Your task to perform on an android device: Open CNN.com Image 0: 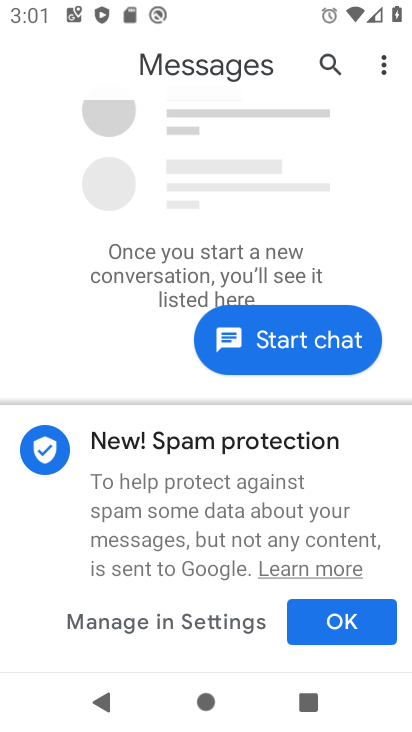
Step 0: press home button
Your task to perform on an android device: Open CNN.com Image 1: 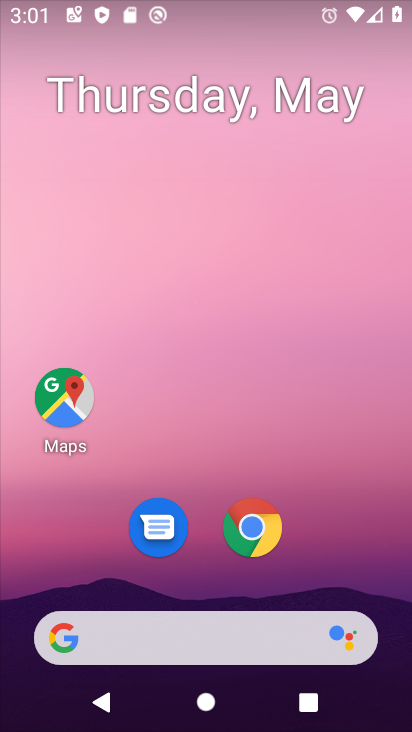
Step 1: click (248, 543)
Your task to perform on an android device: Open CNN.com Image 2: 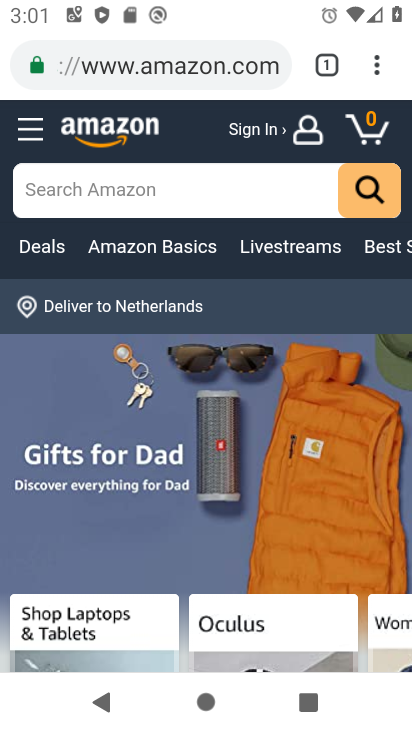
Step 2: drag from (390, 59) to (333, 111)
Your task to perform on an android device: Open CNN.com Image 3: 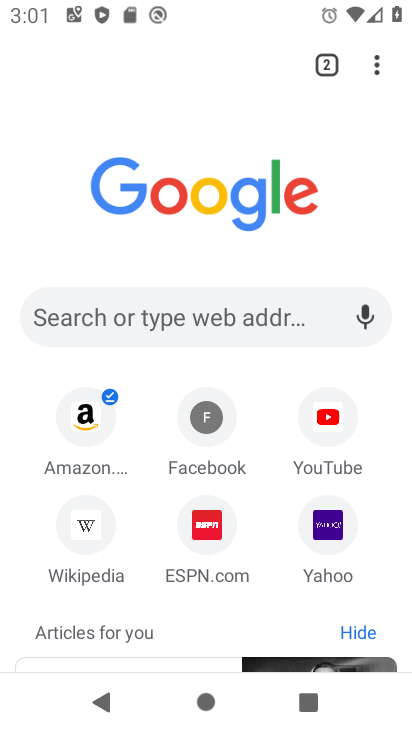
Step 3: click (197, 304)
Your task to perform on an android device: Open CNN.com Image 4: 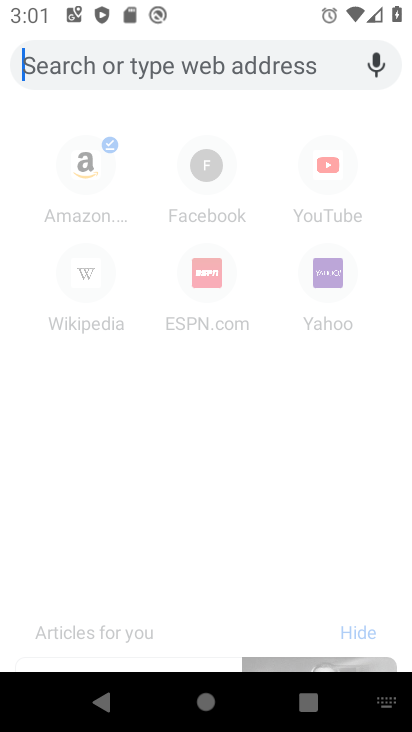
Step 4: type "CNN.com"
Your task to perform on an android device: Open CNN.com Image 5: 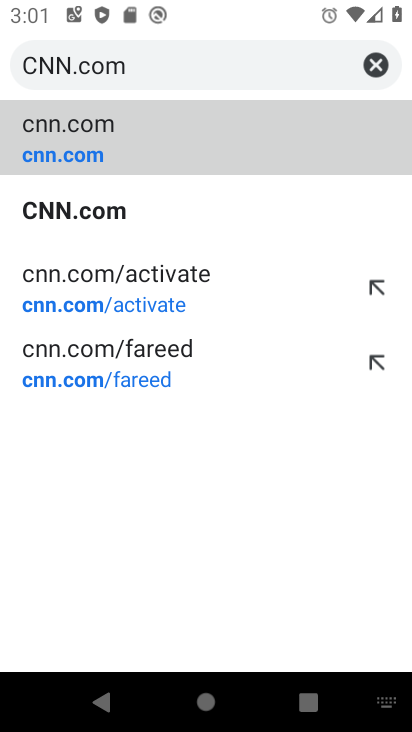
Step 5: click (106, 223)
Your task to perform on an android device: Open CNN.com Image 6: 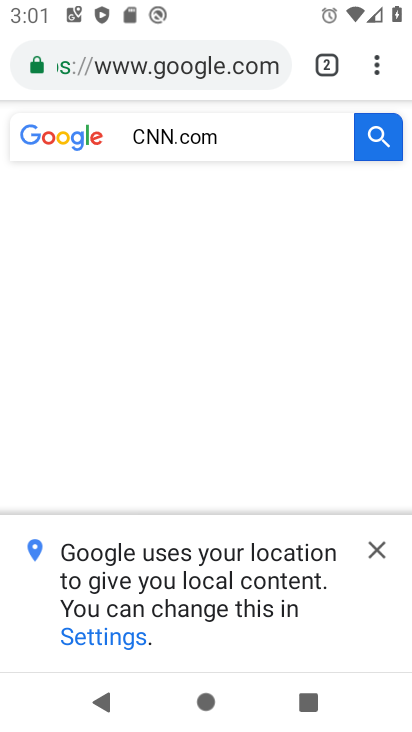
Step 6: click (398, 547)
Your task to perform on an android device: Open CNN.com Image 7: 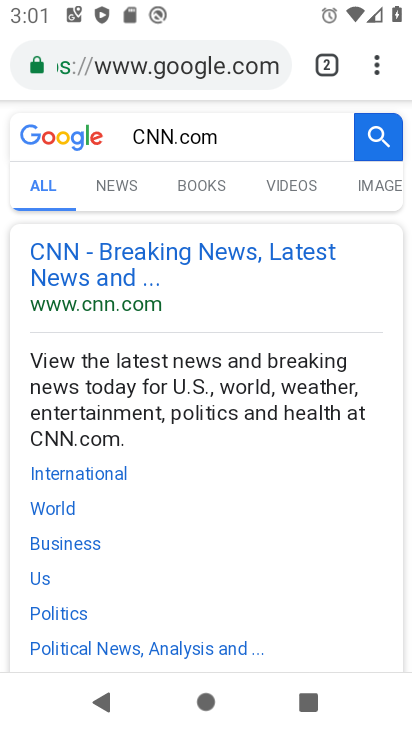
Step 7: click (94, 269)
Your task to perform on an android device: Open CNN.com Image 8: 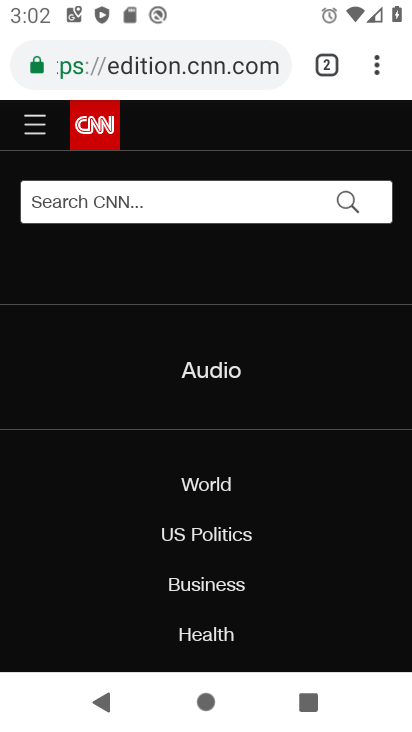
Step 8: task complete